Your task to perform on an android device: change the clock display to show seconds Image 0: 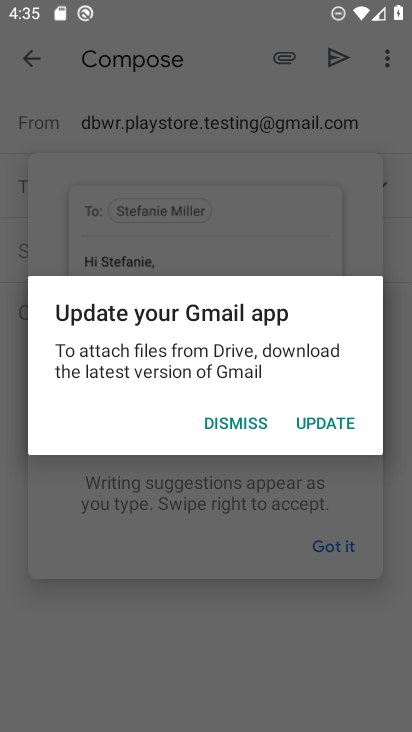
Step 0: press home button
Your task to perform on an android device: change the clock display to show seconds Image 1: 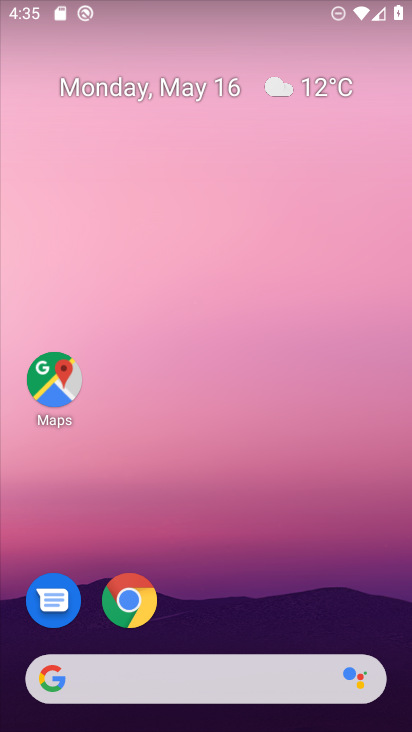
Step 1: drag from (250, 561) to (255, 125)
Your task to perform on an android device: change the clock display to show seconds Image 2: 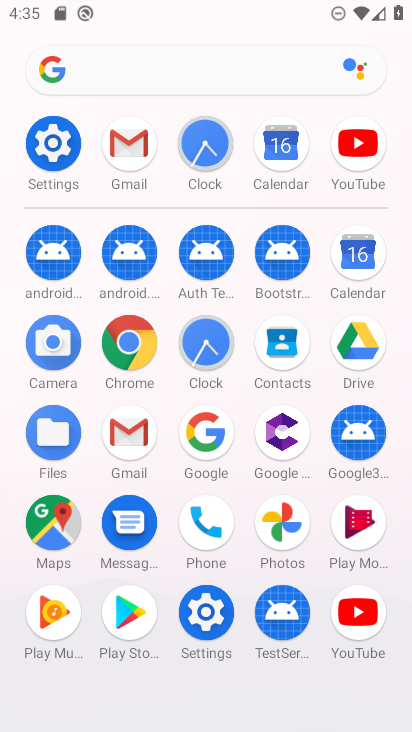
Step 2: click (215, 140)
Your task to perform on an android device: change the clock display to show seconds Image 3: 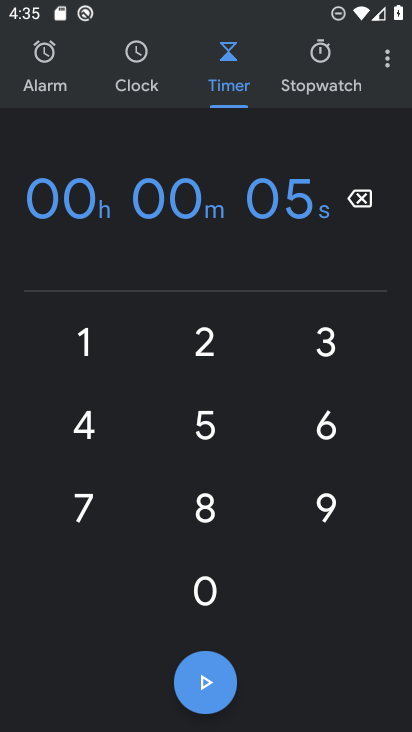
Step 3: click (387, 54)
Your task to perform on an android device: change the clock display to show seconds Image 4: 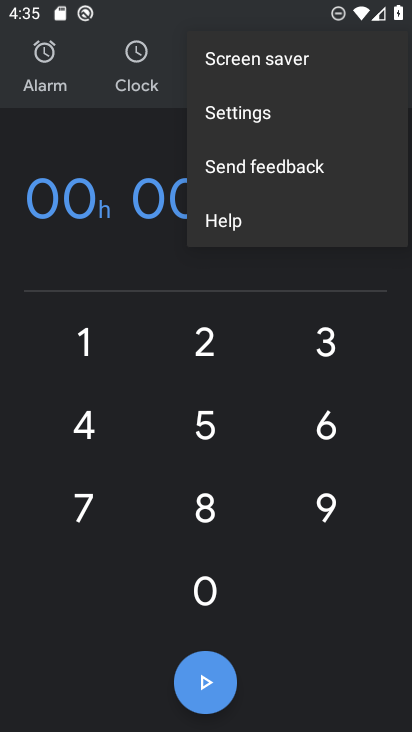
Step 4: click (280, 119)
Your task to perform on an android device: change the clock display to show seconds Image 5: 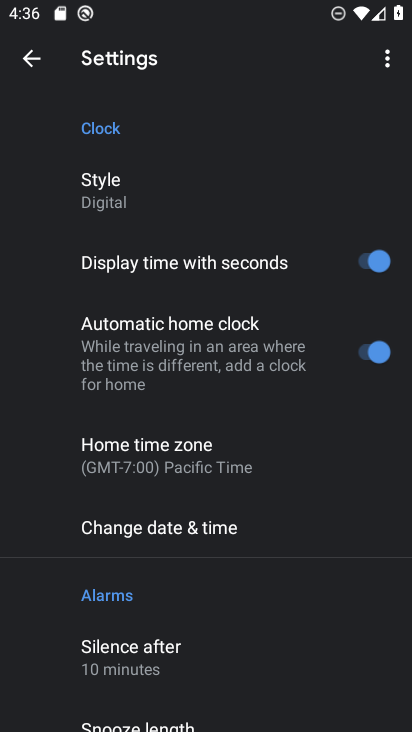
Step 5: task complete